Your task to perform on an android device: snooze an email in the gmail app Image 0: 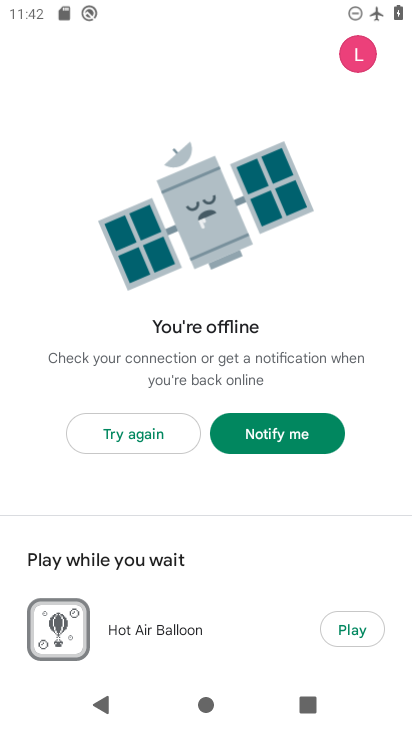
Step 0: press home button
Your task to perform on an android device: snooze an email in the gmail app Image 1: 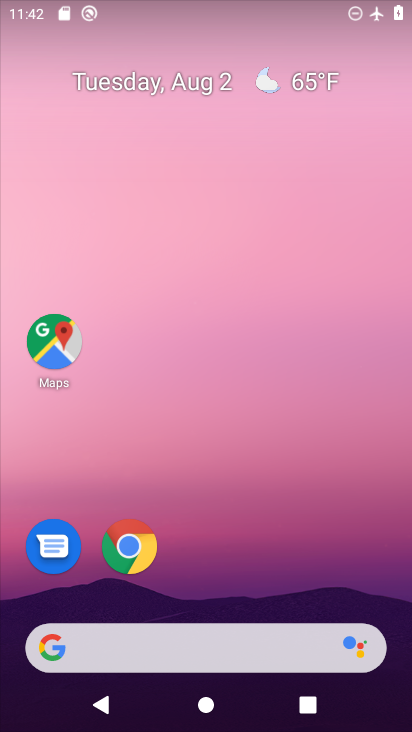
Step 1: drag from (215, 581) to (189, 141)
Your task to perform on an android device: snooze an email in the gmail app Image 2: 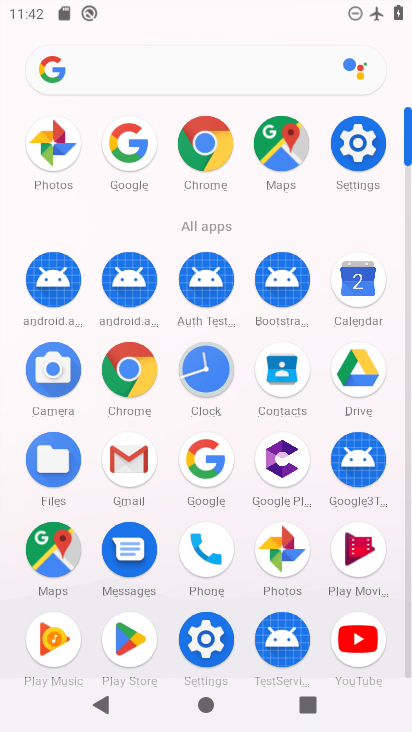
Step 2: click (145, 457)
Your task to perform on an android device: snooze an email in the gmail app Image 3: 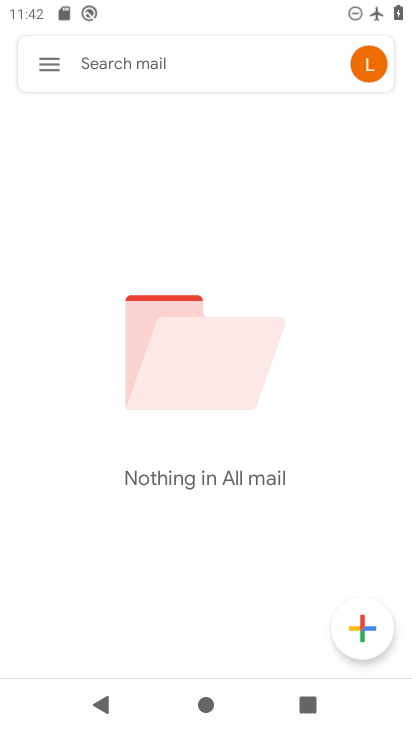
Step 3: click (36, 73)
Your task to perform on an android device: snooze an email in the gmail app Image 4: 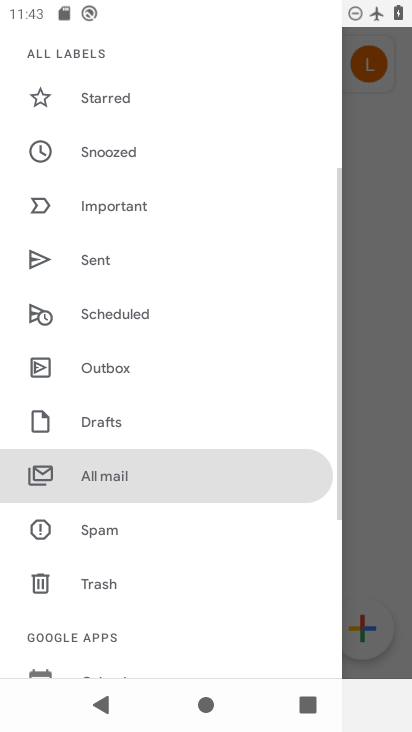
Step 4: click (149, 468)
Your task to perform on an android device: snooze an email in the gmail app Image 5: 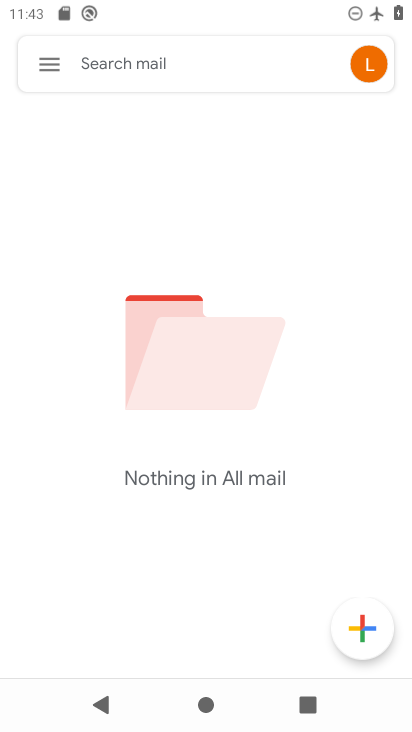
Step 5: task complete